Your task to perform on an android device: turn on wifi Image 0: 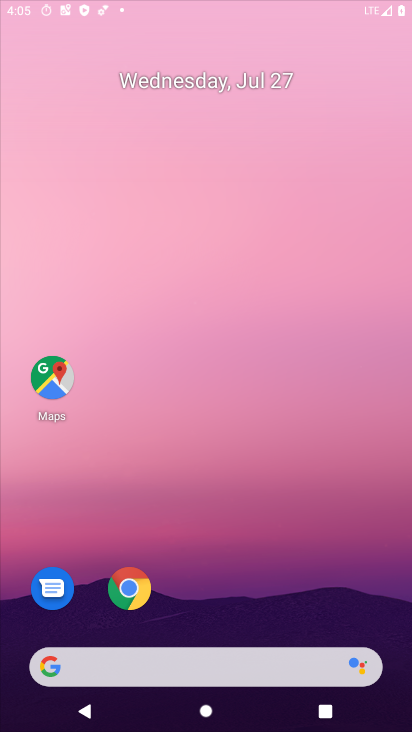
Step 0: press home button
Your task to perform on an android device: turn on wifi Image 1: 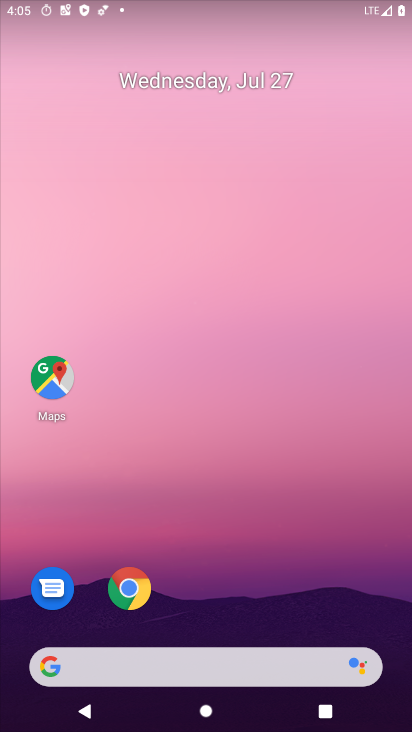
Step 1: drag from (175, 2) to (193, 198)
Your task to perform on an android device: turn on wifi Image 2: 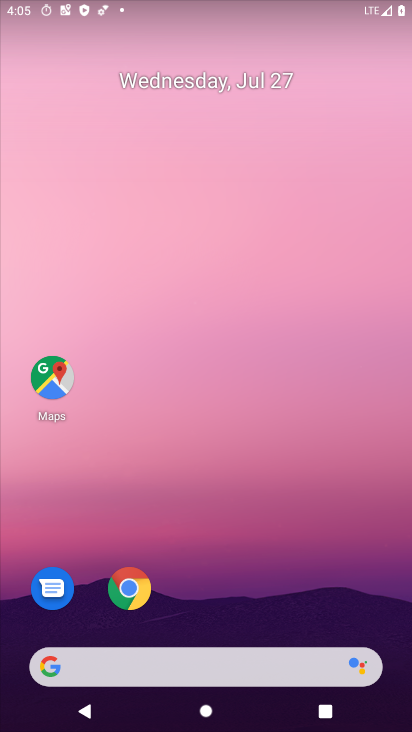
Step 2: drag from (169, 20) to (166, 109)
Your task to perform on an android device: turn on wifi Image 3: 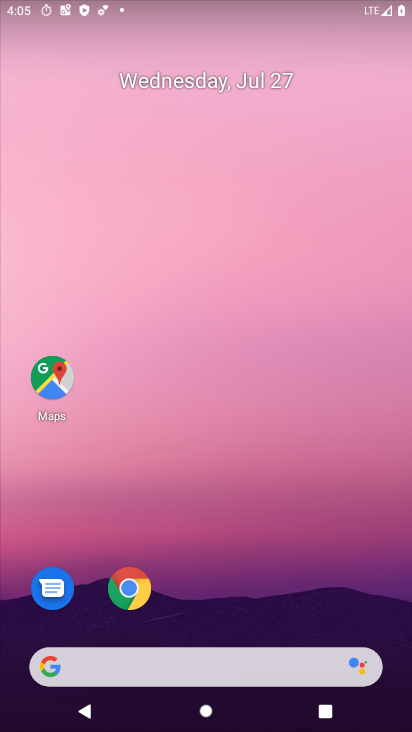
Step 3: drag from (184, 44) to (257, 510)
Your task to perform on an android device: turn on wifi Image 4: 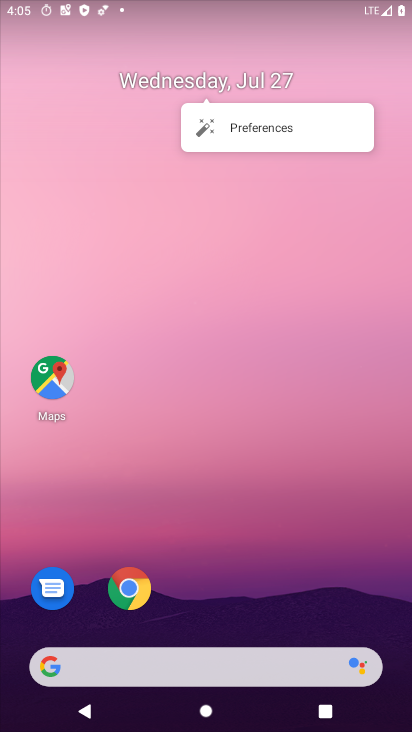
Step 4: drag from (162, 136) to (150, 378)
Your task to perform on an android device: turn on wifi Image 5: 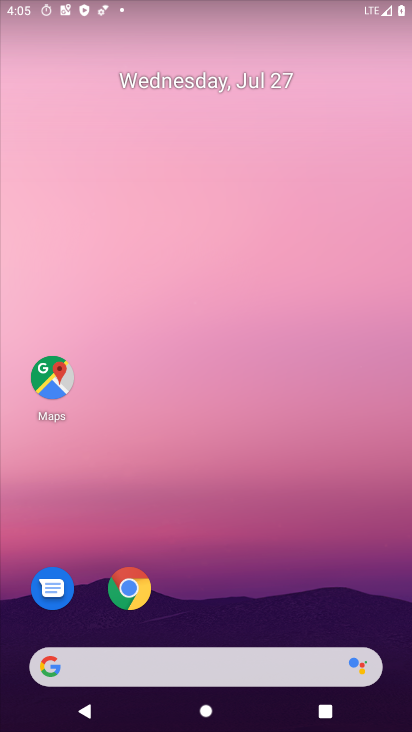
Step 5: drag from (191, 6) to (193, 133)
Your task to perform on an android device: turn on wifi Image 6: 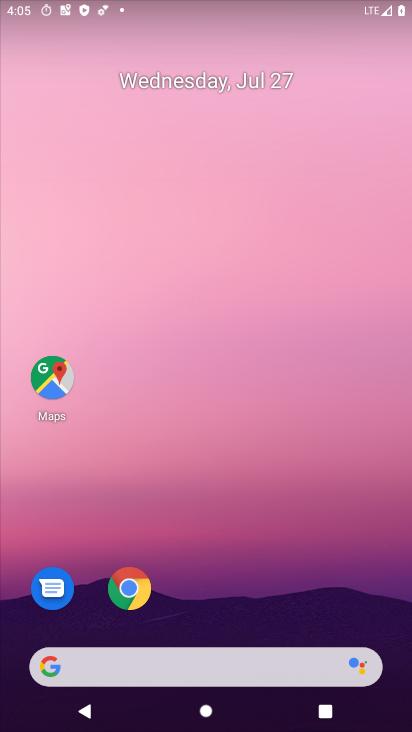
Step 6: drag from (179, 16) to (280, 321)
Your task to perform on an android device: turn on wifi Image 7: 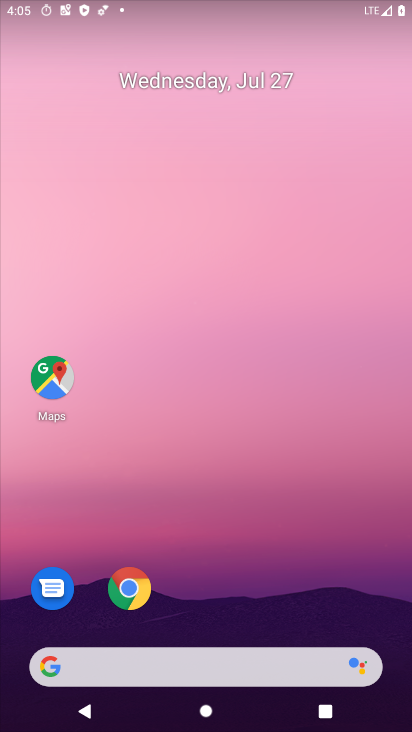
Step 7: drag from (247, 31) to (203, 140)
Your task to perform on an android device: turn on wifi Image 8: 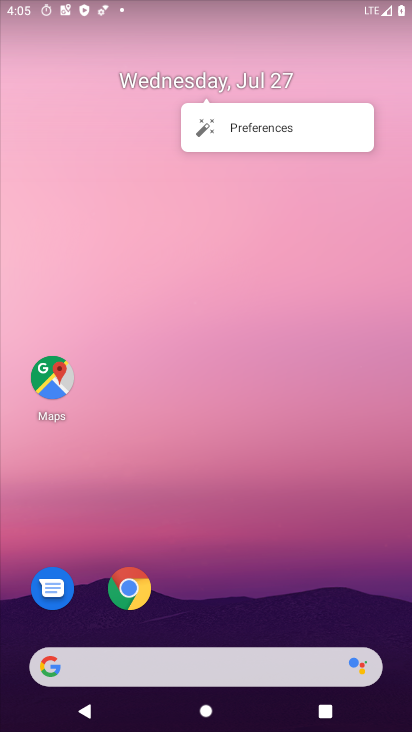
Step 8: drag from (171, 3) to (161, 385)
Your task to perform on an android device: turn on wifi Image 9: 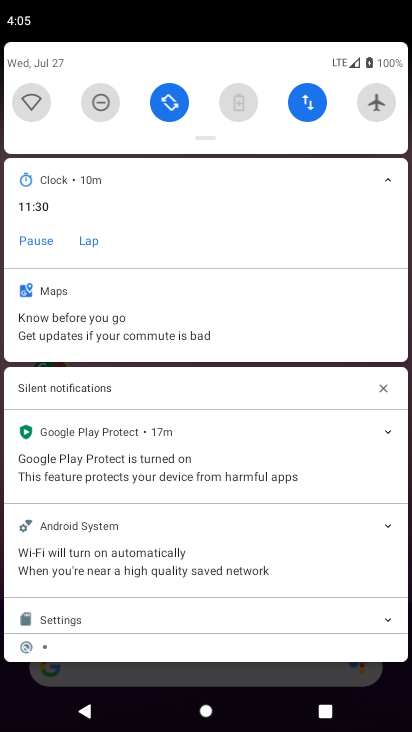
Step 9: click (32, 104)
Your task to perform on an android device: turn on wifi Image 10: 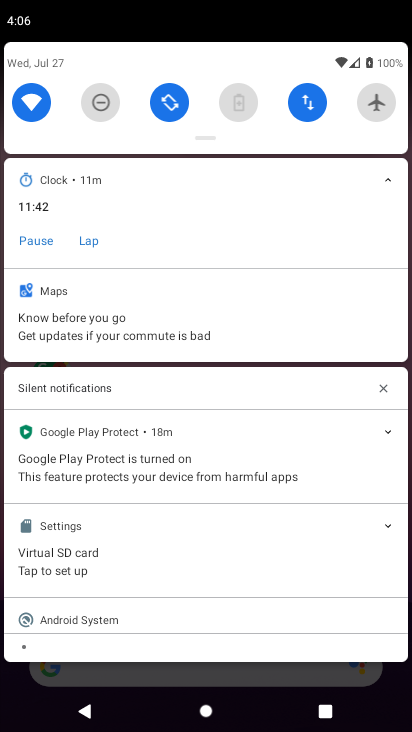
Step 10: task complete